Your task to perform on an android device: Open display settings Image 0: 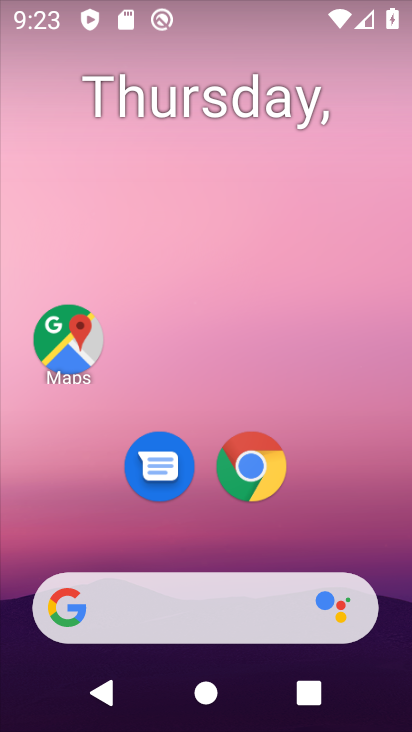
Step 0: drag from (319, 620) to (237, 66)
Your task to perform on an android device: Open display settings Image 1: 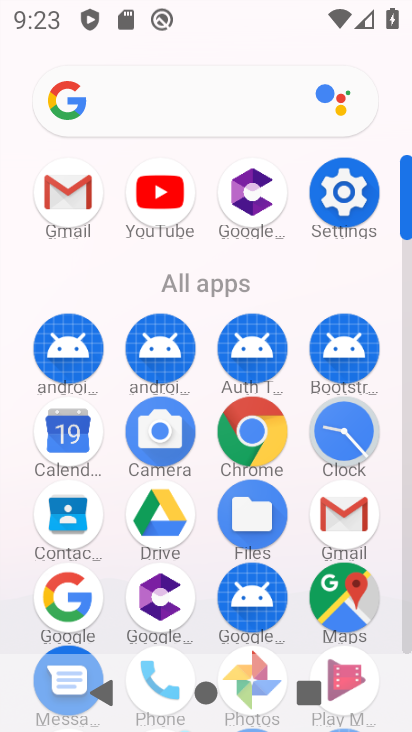
Step 1: click (364, 177)
Your task to perform on an android device: Open display settings Image 2: 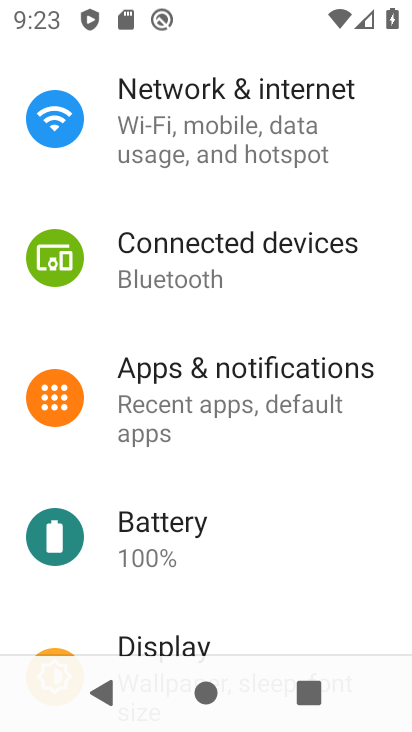
Step 2: click (215, 644)
Your task to perform on an android device: Open display settings Image 3: 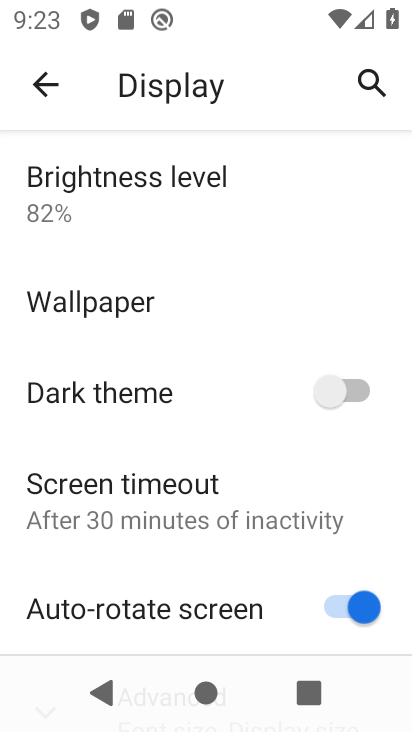
Step 3: task complete